Your task to perform on an android device: Go to network settings Image 0: 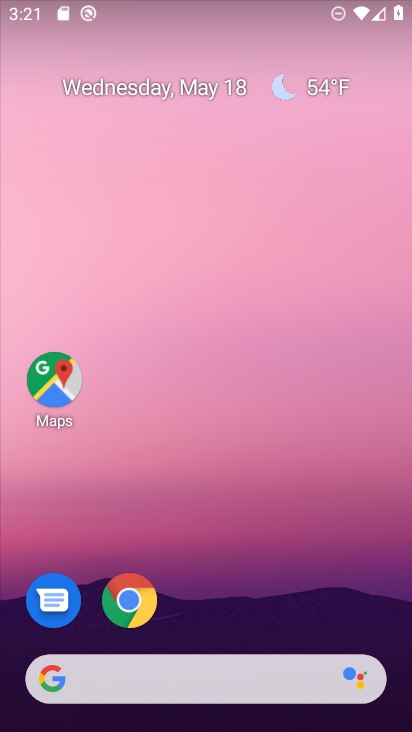
Step 0: drag from (241, 8) to (243, 343)
Your task to perform on an android device: Go to network settings Image 1: 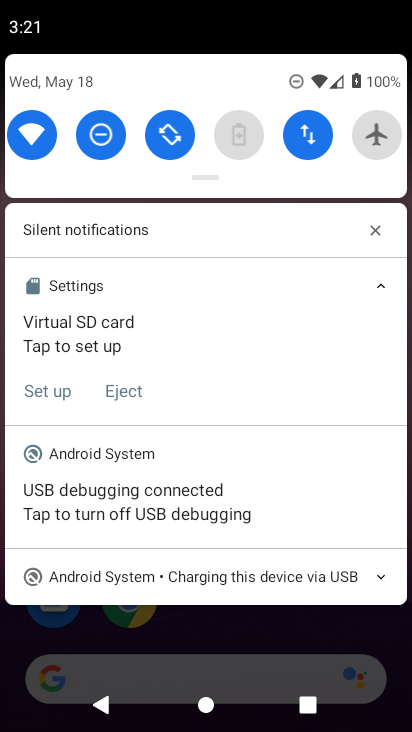
Step 1: drag from (266, 427) to (302, 4)
Your task to perform on an android device: Go to network settings Image 2: 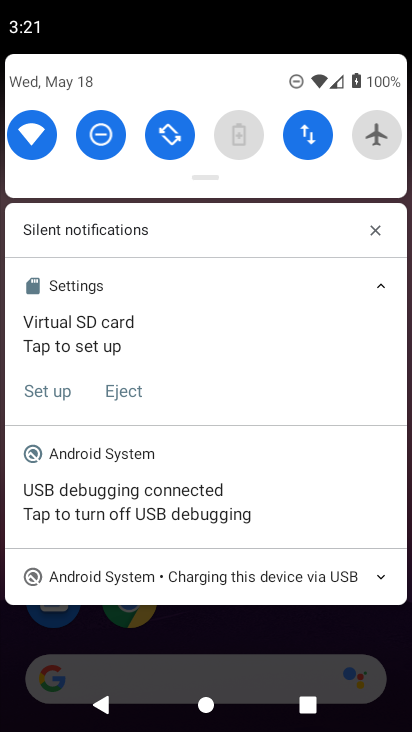
Step 2: click (255, 629)
Your task to perform on an android device: Go to network settings Image 3: 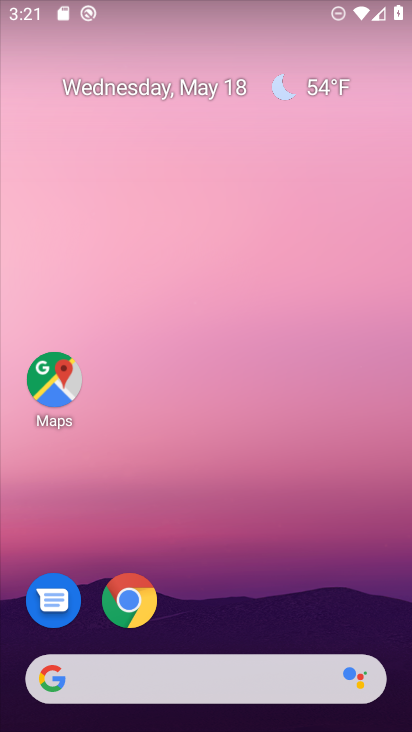
Step 3: drag from (215, 627) to (264, 144)
Your task to perform on an android device: Go to network settings Image 4: 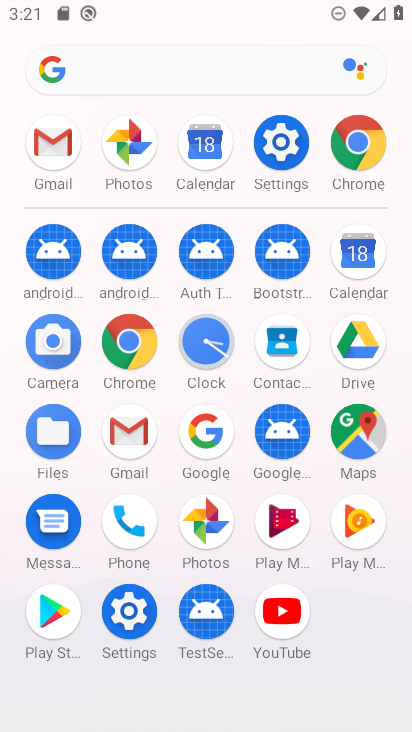
Step 4: drag from (248, 581) to (263, 26)
Your task to perform on an android device: Go to network settings Image 5: 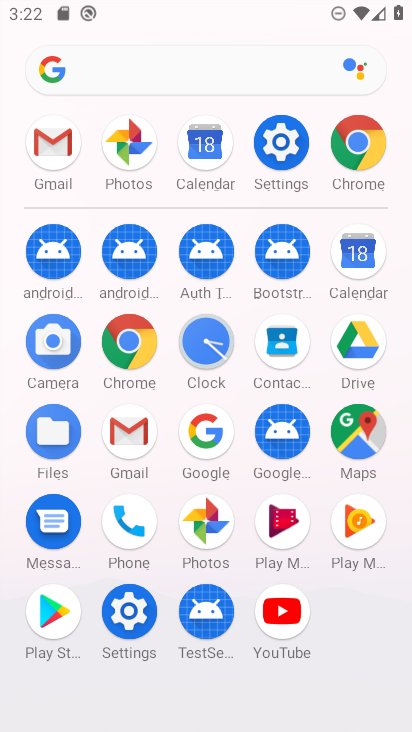
Step 5: click (275, 145)
Your task to perform on an android device: Go to network settings Image 6: 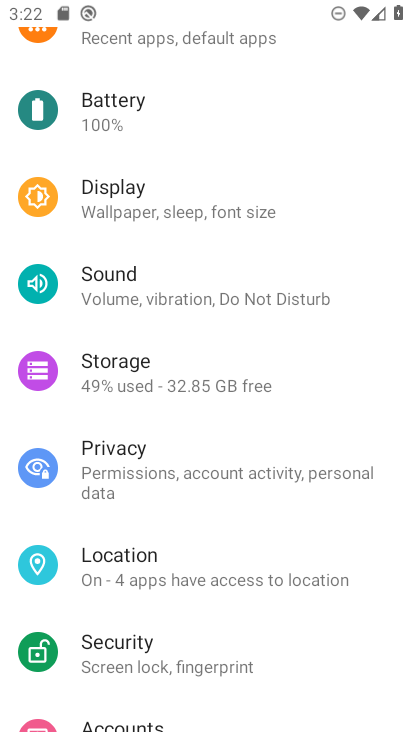
Step 6: drag from (190, 170) to (167, 627)
Your task to perform on an android device: Go to network settings Image 7: 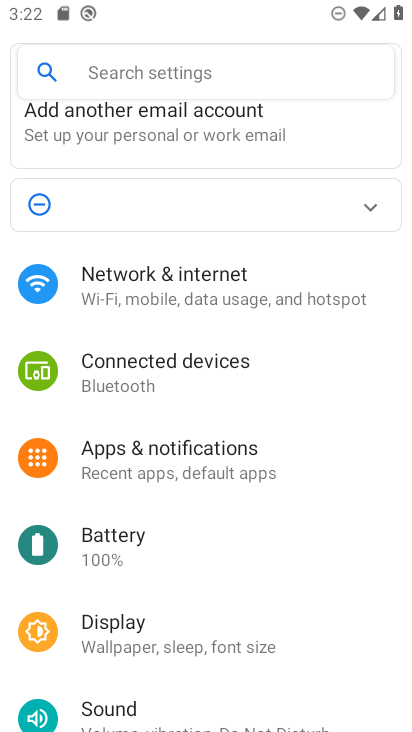
Step 7: click (158, 292)
Your task to perform on an android device: Go to network settings Image 8: 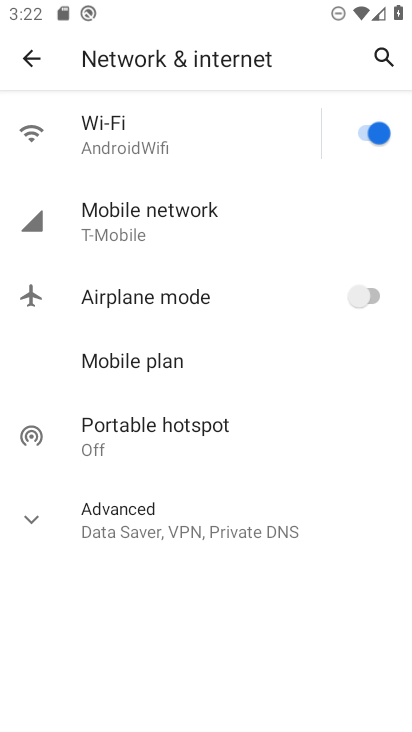
Step 8: task complete